Your task to perform on an android device: open app "Adobe Acrobat Reader" Image 0: 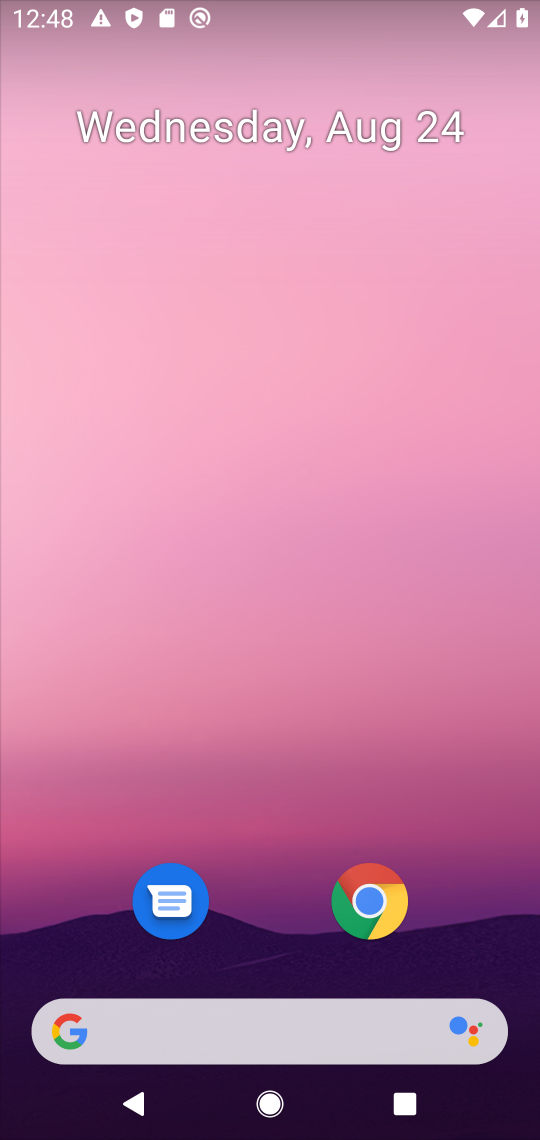
Step 0: drag from (223, 939) to (361, 168)
Your task to perform on an android device: open app "Adobe Acrobat Reader" Image 1: 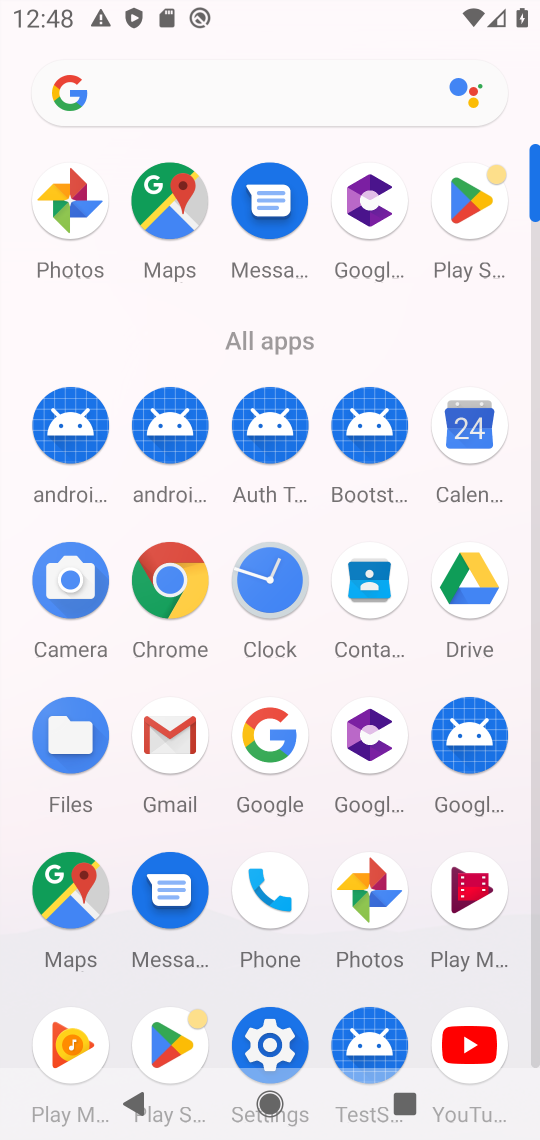
Step 1: click (467, 207)
Your task to perform on an android device: open app "Adobe Acrobat Reader" Image 2: 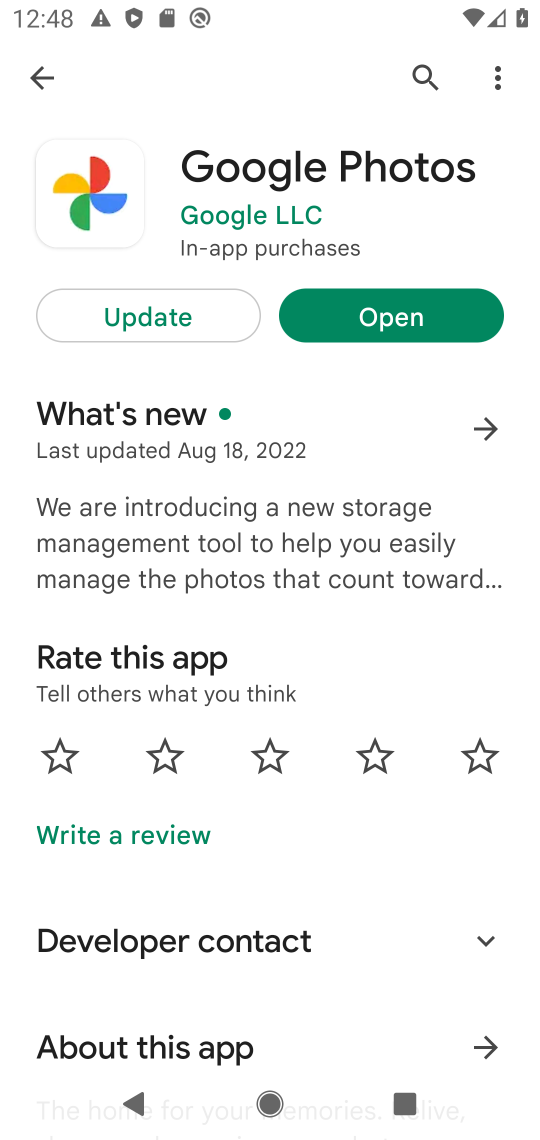
Step 2: click (402, 71)
Your task to perform on an android device: open app "Adobe Acrobat Reader" Image 3: 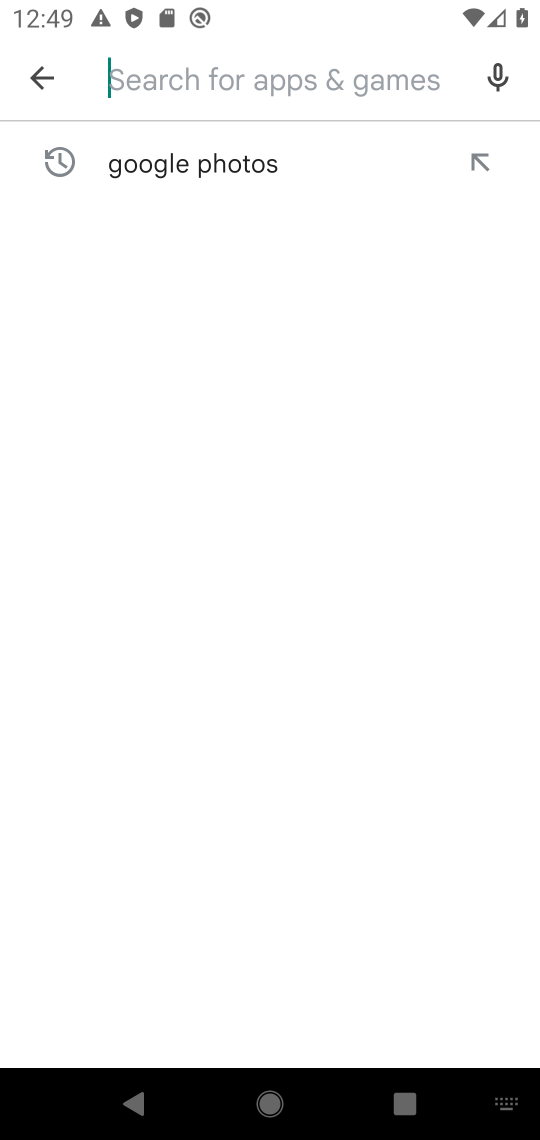
Step 3: click (181, 92)
Your task to perform on an android device: open app "Adobe Acrobat Reader" Image 4: 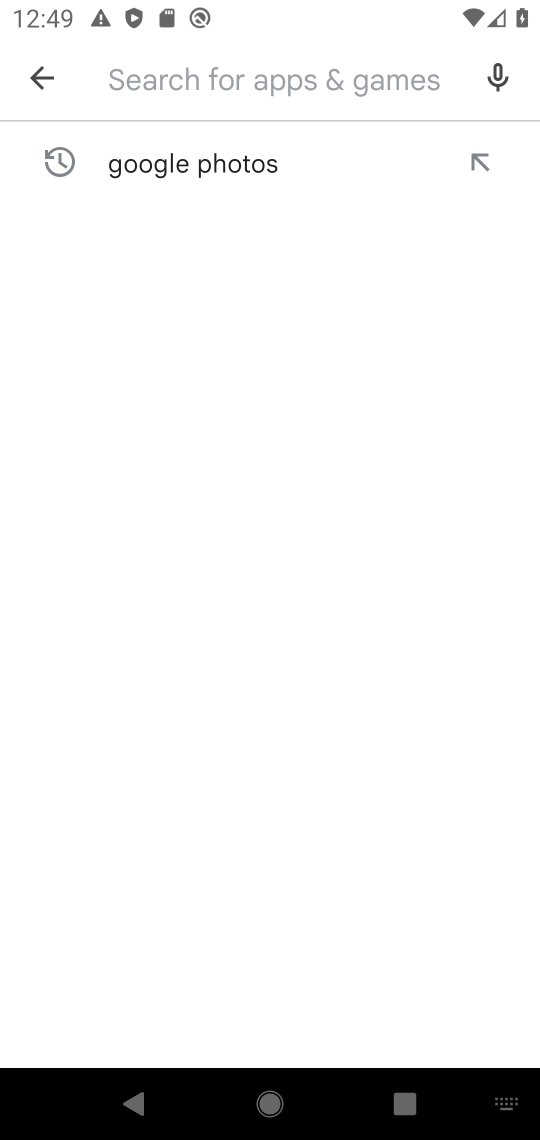
Step 4: type "Adobe Acrobat Reader"
Your task to perform on an android device: open app "Adobe Acrobat Reader" Image 5: 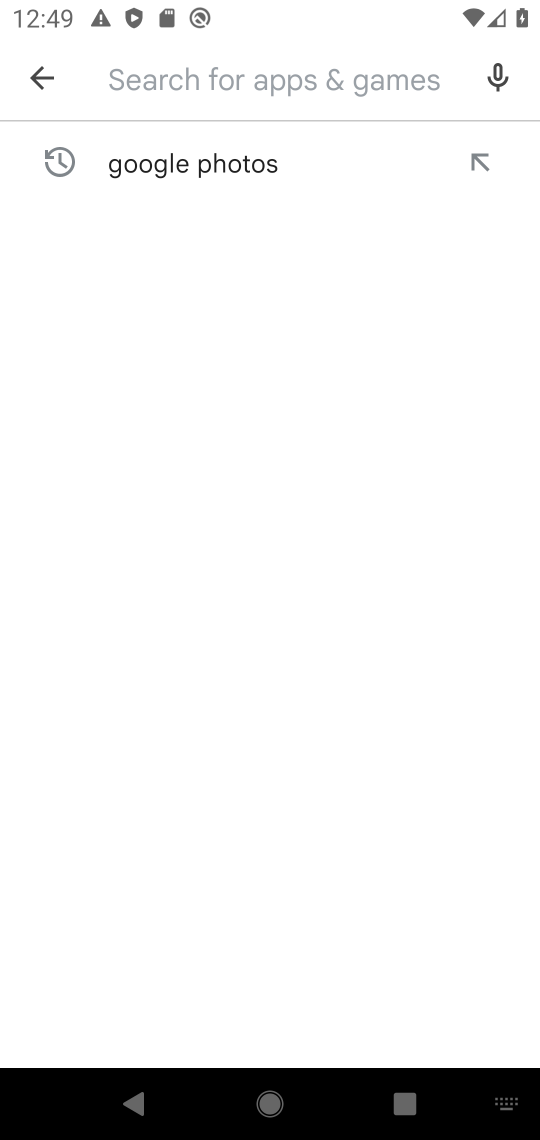
Step 5: click (425, 751)
Your task to perform on an android device: open app "Adobe Acrobat Reader" Image 6: 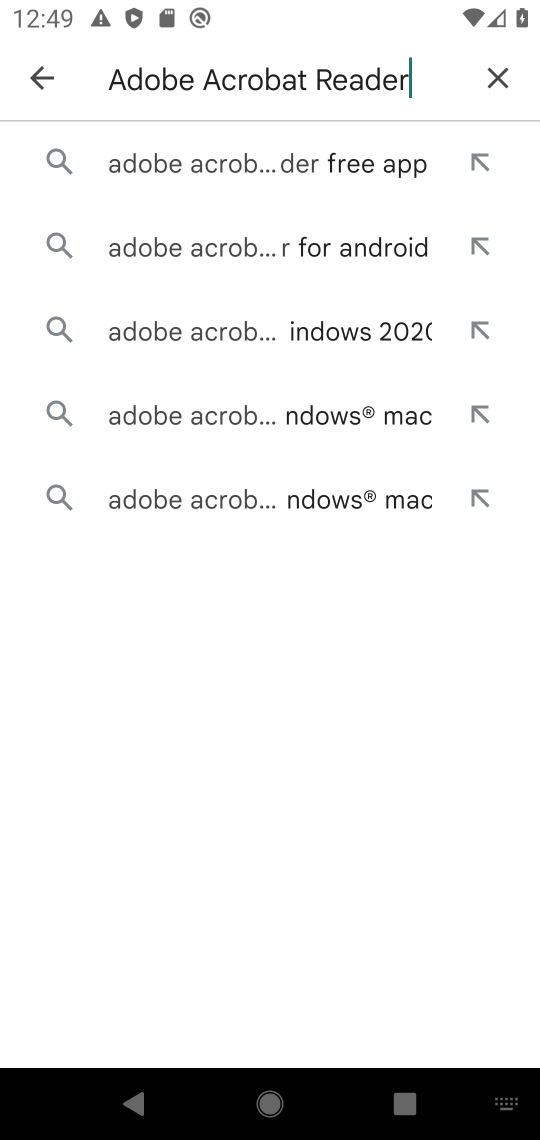
Step 6: click (253, 170)
Your task to perform on an android device: open app "Adobe Acrobat Reader" Image 7: 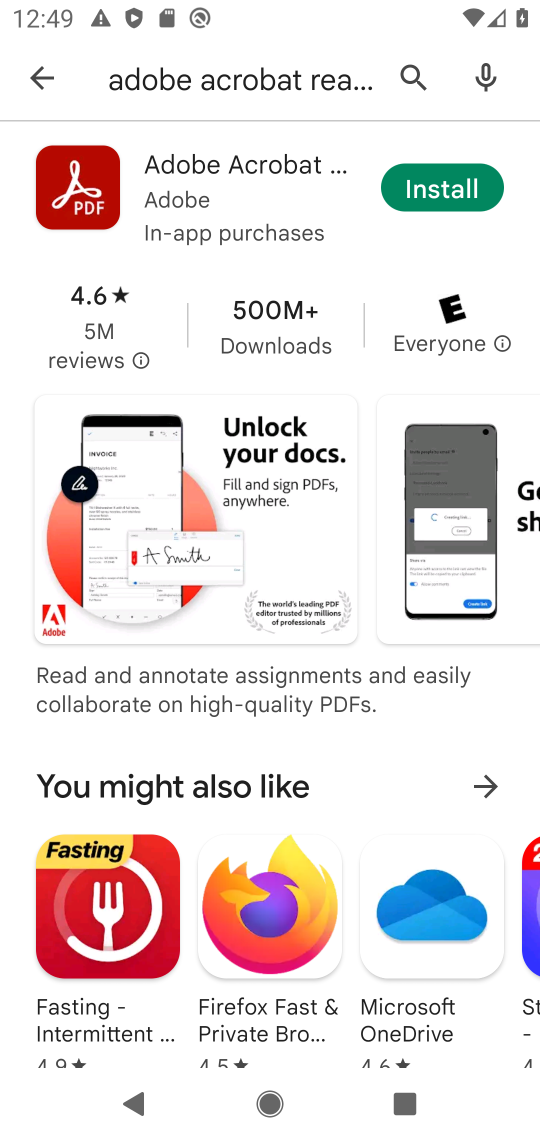
Step 7: task complete